Your task to perform on an android device: set the timer Image 0: 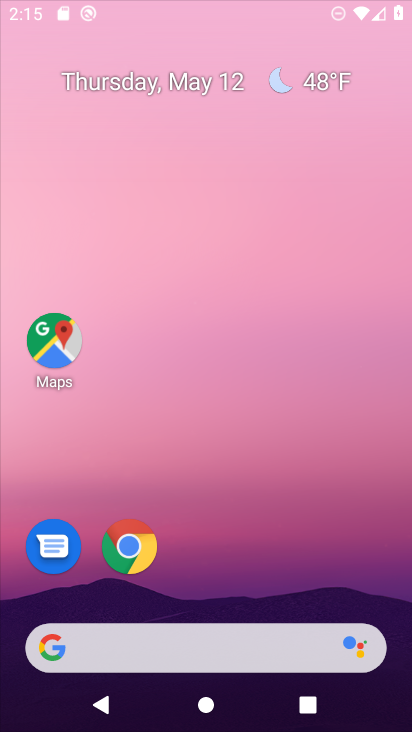
Step 0: click (152, 209)
Your task to perform on an android device: set the timer Image 1: 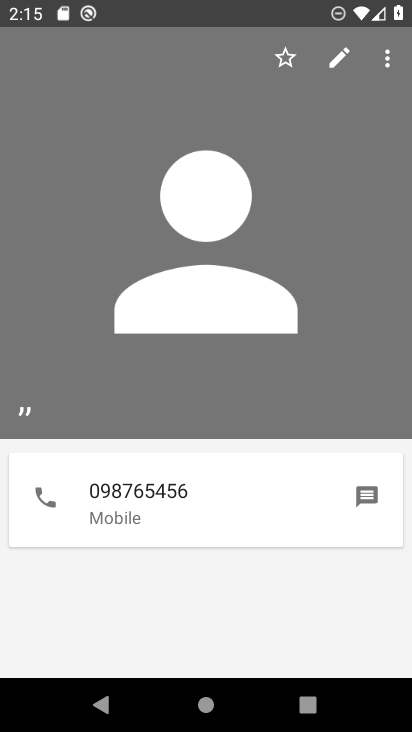
Step 1: press home button
Your task to perform on an android device: set the timer Image 2: 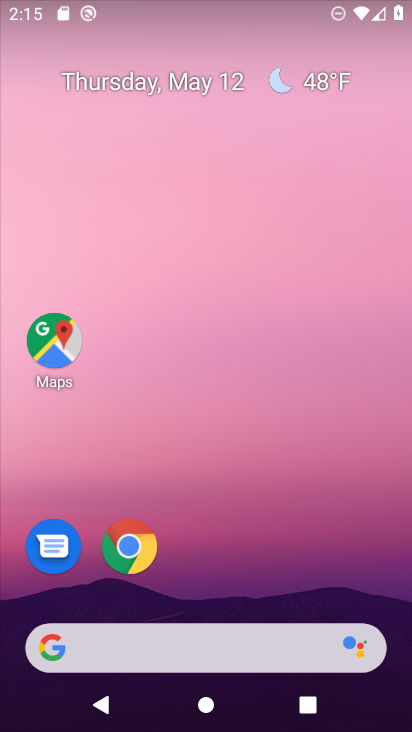
Step 2: drag from (252, 683) to (149, 178)
Your task to perform on an android device: set the timer Image 3: 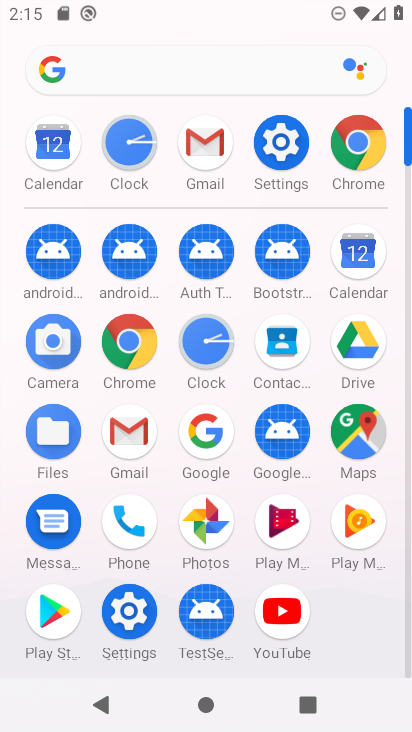
Step 3: click (215, 351)
Your task to perform on an android device: set the timer Image 4: 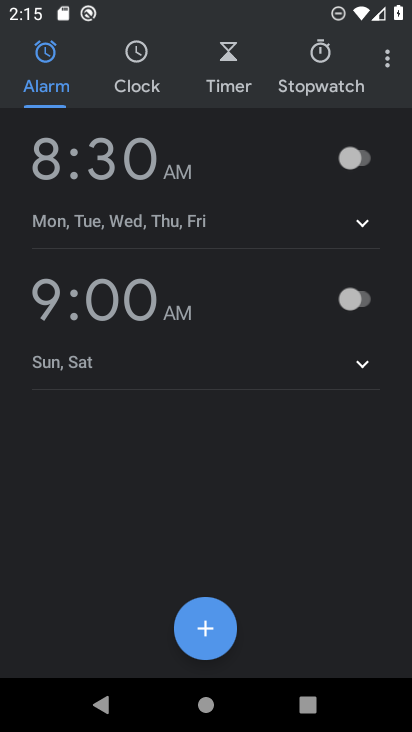
Step 4: click (219, 94)
Your task to perform on an android device: set the timer Image 5: 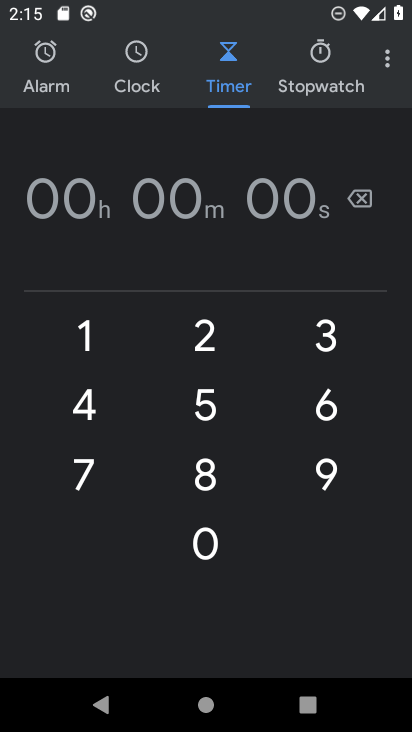
Step 5: click (190, 424)
Your task to perform on an android device: set the timer Image 6: 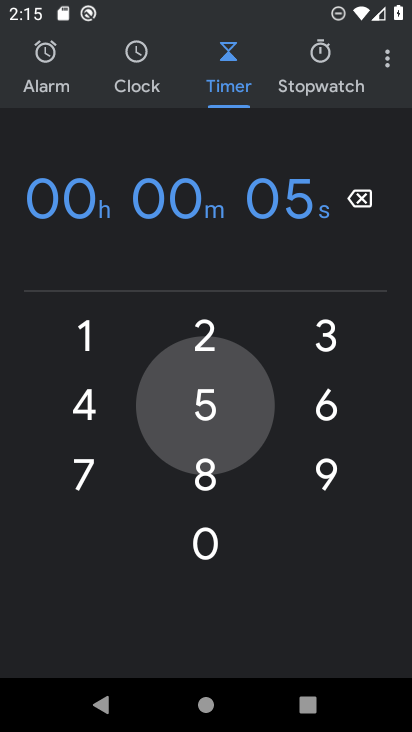
Step 6: click (105, 422)
Your task to perform on an android device: set the timer Image 7: 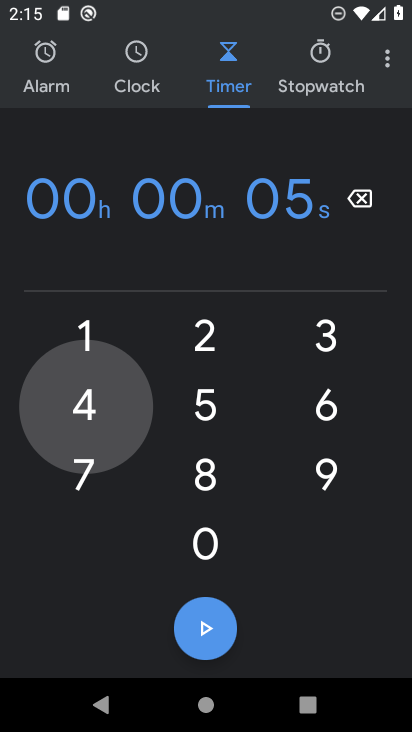
Step 7: click (107, 471)
Your task to perform on an android device: set the timer Image 8: 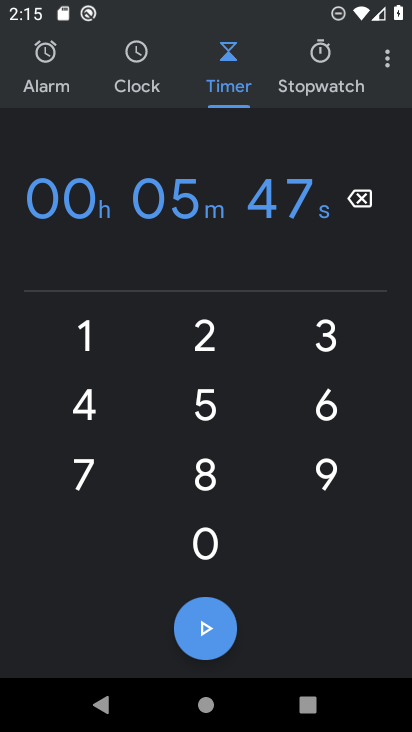
Step 8: task complete